Your task to perform on an android device: turn off location Image 0: 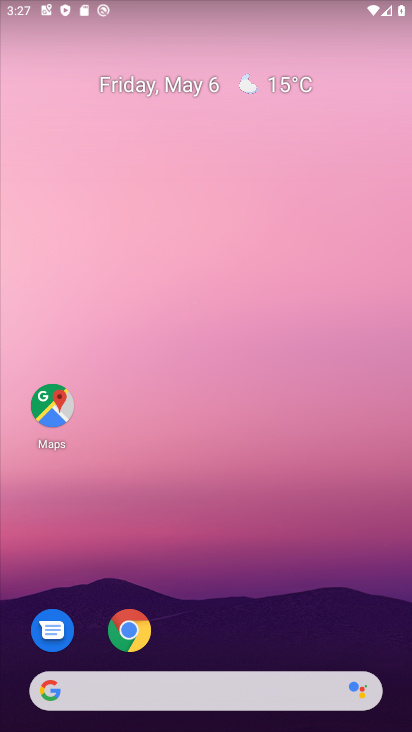
Step 0: drag from (245, 648) to (297, 54)
Your task to perform on an android device: turn off location Image 1: 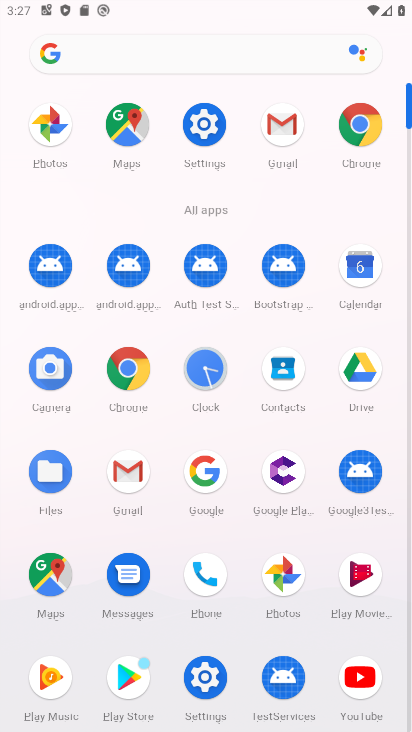
Step 1: click (215, 124)
Your task to perform on an android device: turn off location Image 2: 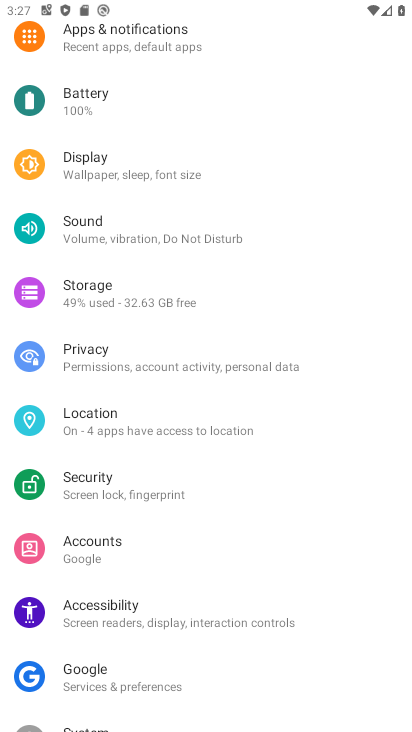
Step 2: click (114, 421)
Your task to perform on an android device: turn off location Image 3: 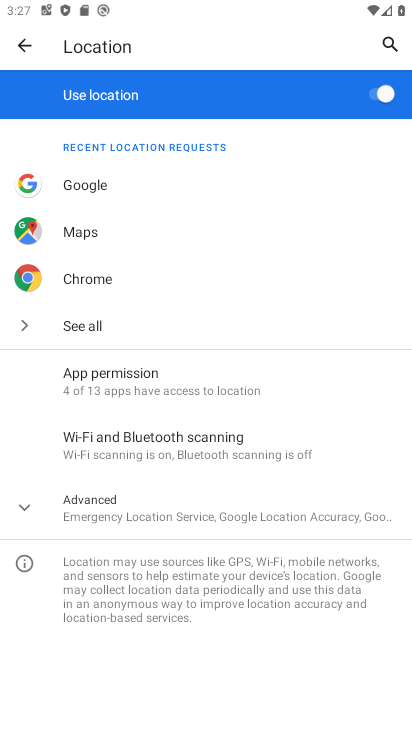
Step 3: click (383, 93)
Your task to perform on an android device: turn off location Image 4: 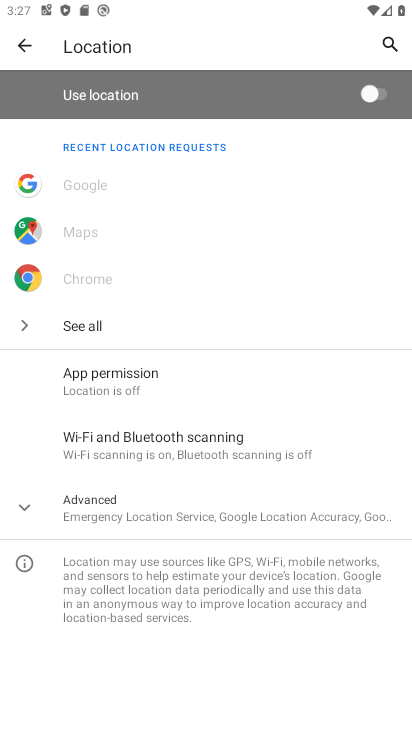
Step 4: task complete